Your task to perform on an android device: star an email in the gmail app Image 0: 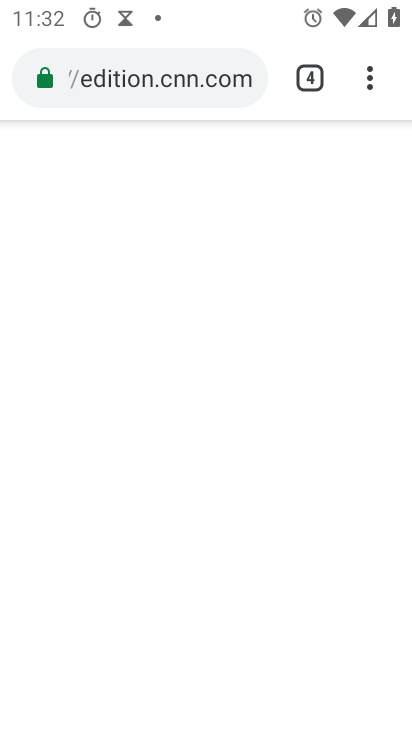
Step 0: press back button
Your task to perform on an android device: star an email in the gmail app Image 1: 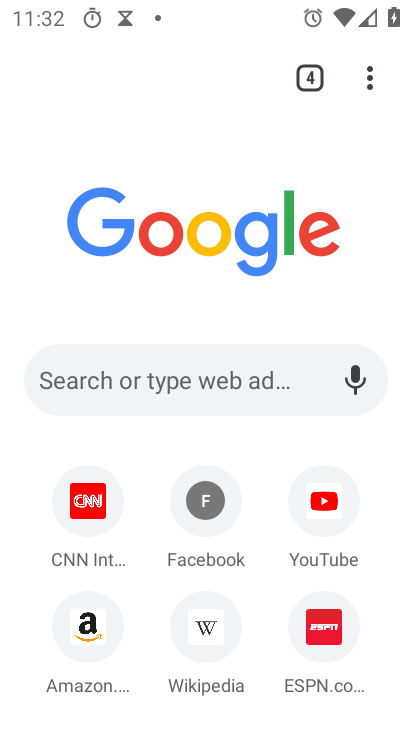
Step 1: press home button
Your task to perform on an android device: star an email in the gmail app Image 2: 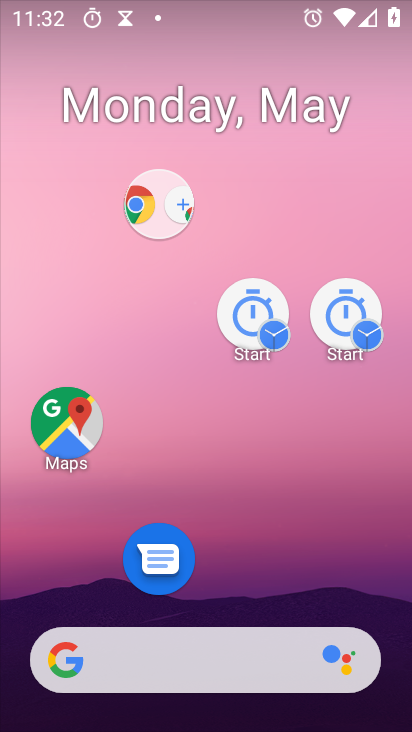
Step 2: drag from (254, 623) to (218, 155)
Your task to perform on an android device: star an email in the gmail app Image 3: 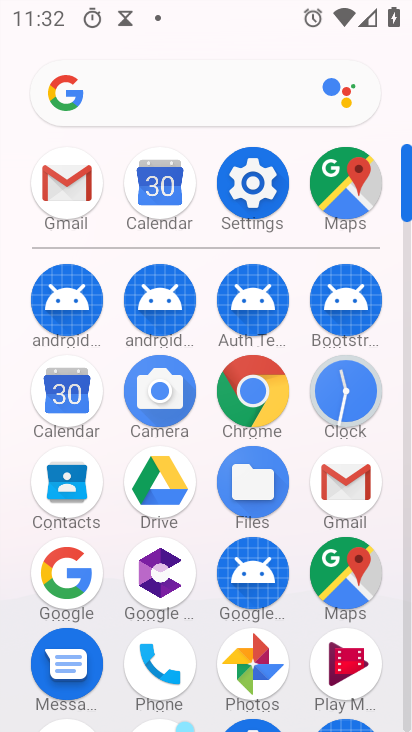
Step 3: click (336, 489)
Your task to perform on an android device: star an email in the gmail app Image 4: 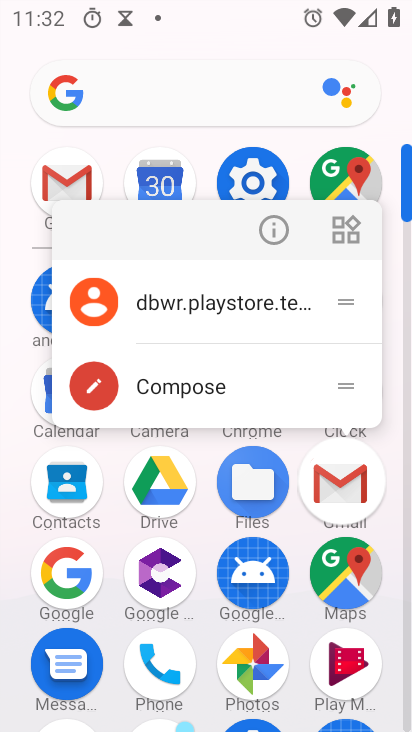
Step 4: click (333, 488)
Your task to perform on an android device: star an email in the gmail app Image 5: 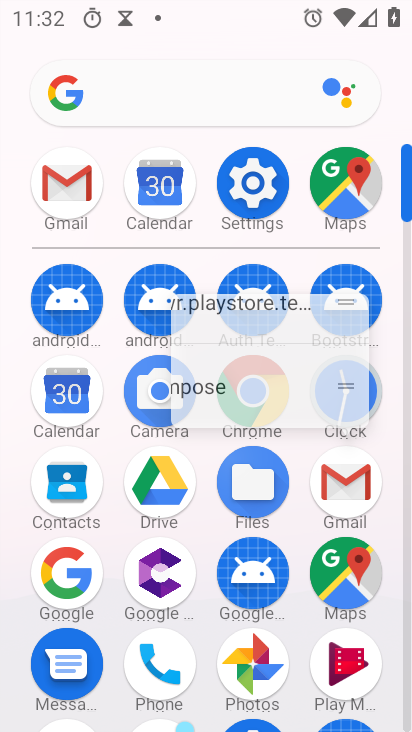
Step 5: click (335, 493)
Your task to perform on an android device: star an email in the gmail app Image 6: 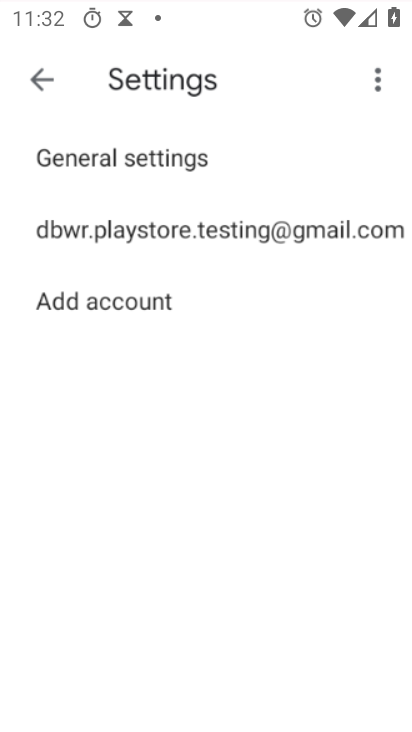
Step 6: click (332, 491)
Your task to perform on an android device: star an email in the gmail app Image 7: 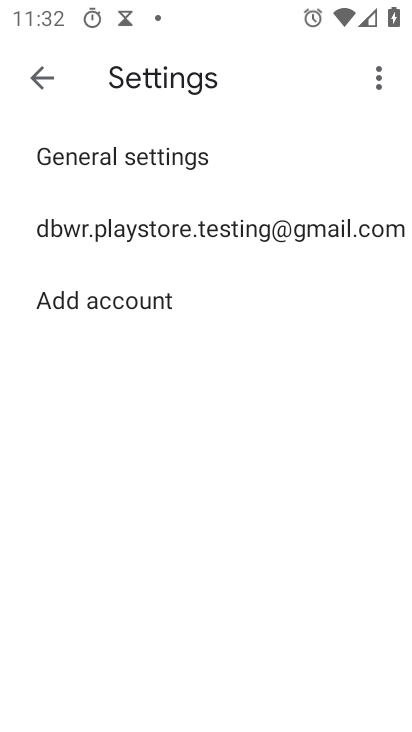
Step 7: click (333, 489)
Your task to perform on an android device: star an email in the gmail app Image 8: 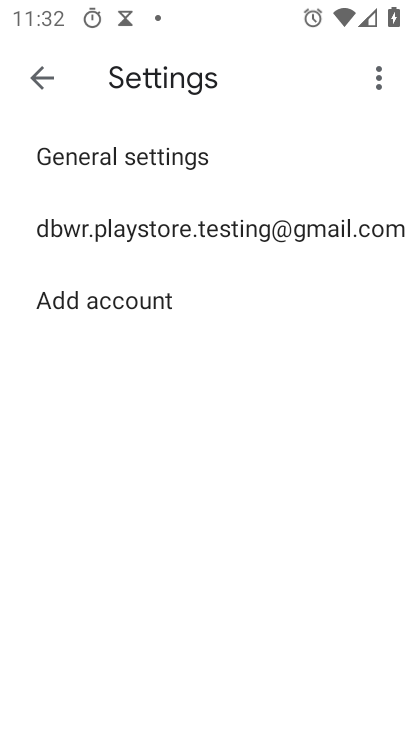
Step 8: click (132, 227)
Your task to perform on an android device: star an email in the gmail app Image 9: 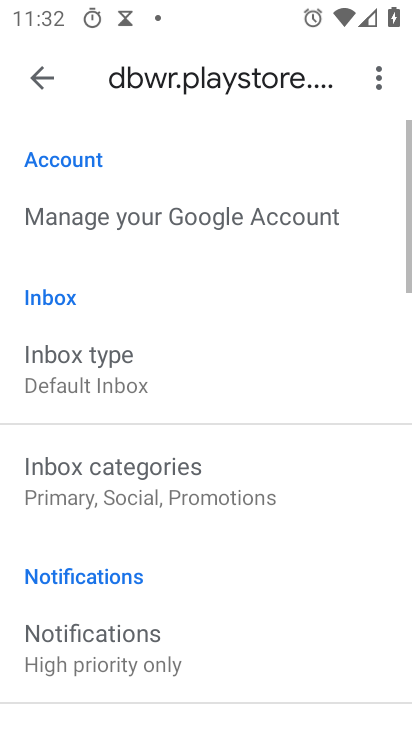
Step 9: click (156, 225)
Your task to perform on an android device: star an email in the gmail app Image 10: 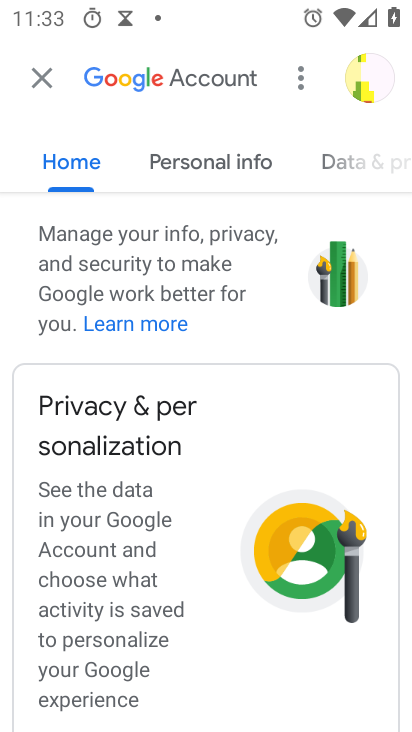
Step 10: click (38, 77)
Your task to perform on an android device: star an email in the gmail app Image 11: 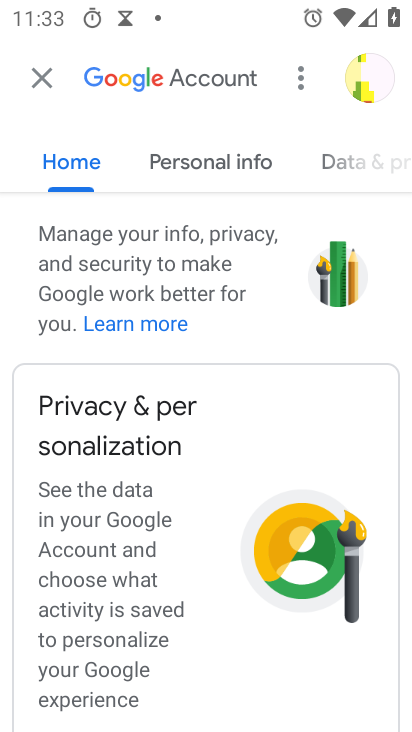
Step 11: click (31, 77)
Your task to perform on an android device: star an email in the gmail app Image 12: 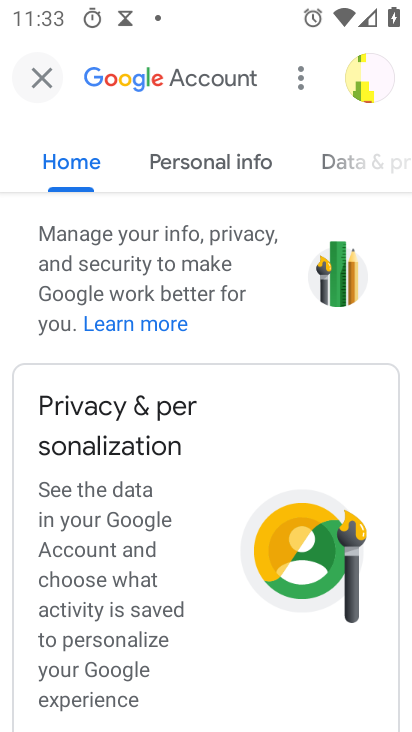
Step 12: click (34, 71)
Your task to perform on an android device: star an email in the gmail app Image 13: 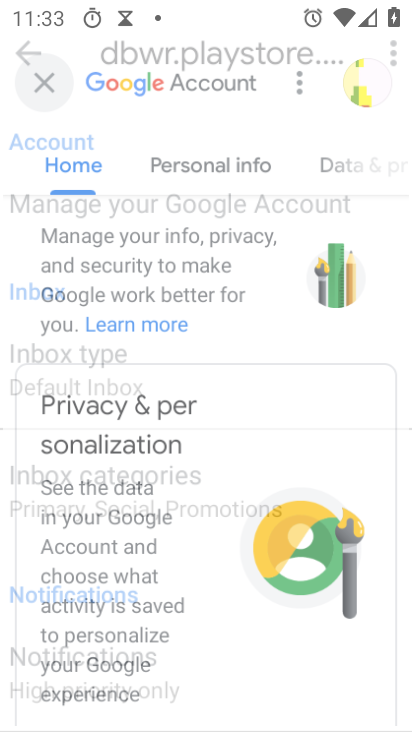
Step 13: click (36, 72)
Your task to perform on an android device: star an email in the gmail app Image 14: 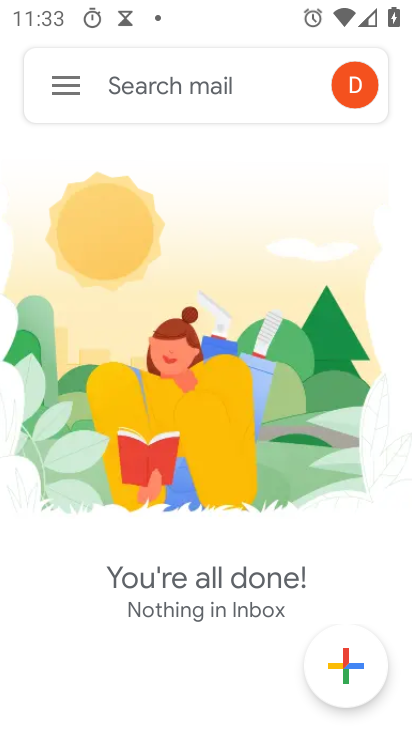
Step 14: click (66, 88)
Your task to perform on an android device: star an email in the gmail app Image 15: 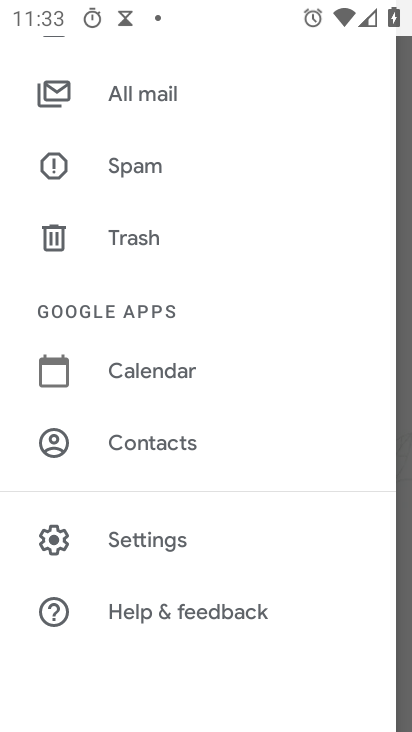
Step 15: click (142, 539)
Your task to perform on an android device: star an email in the gmail app Image 16: 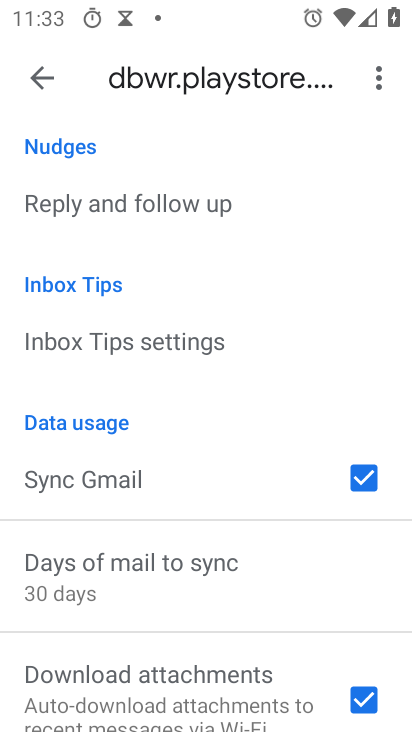
Step 16: drag from (170, 467) to (130, 107)
Your task to perform on an android device: star an email in the gmail app Image 17: 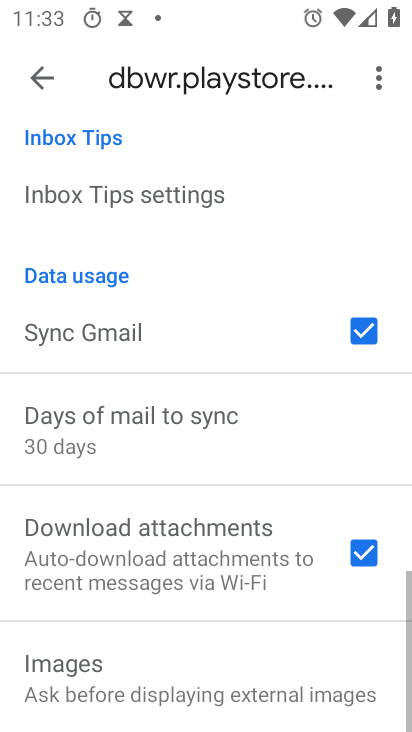
Step 17: drag from (164, 377) to (147, 119)
Your task to perform on an android device: star an email in the gmail app Image 18: 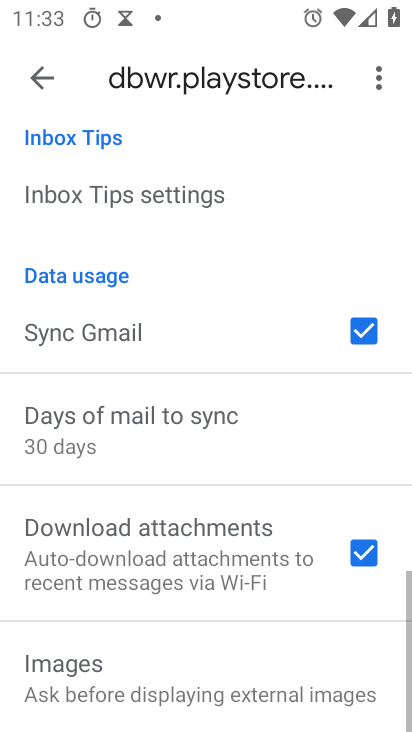
Step 18: click (41, 76)
Your task to perform on an android device: star an email in the gmail app Image 19: 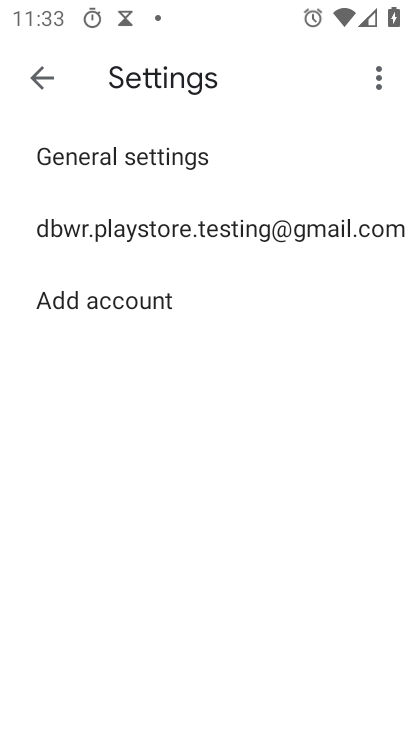
Step 19: click (35, 84)
Your task to perform on an android device: star an email in the gmail app Image 20: 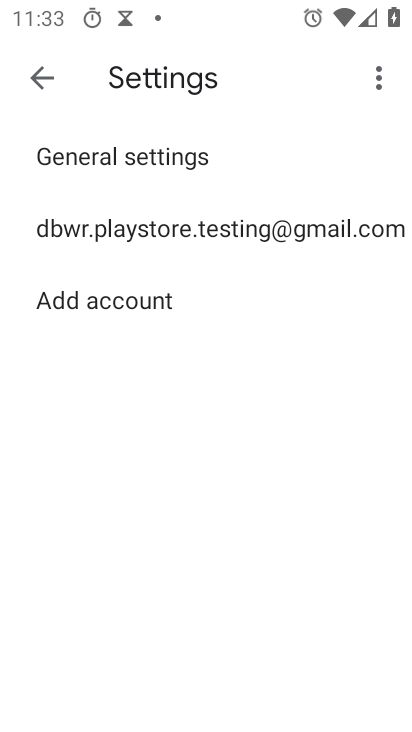
Step 20: click (35, 82)
Your task to perform on an android device: star an email in the gmail app Image 21: 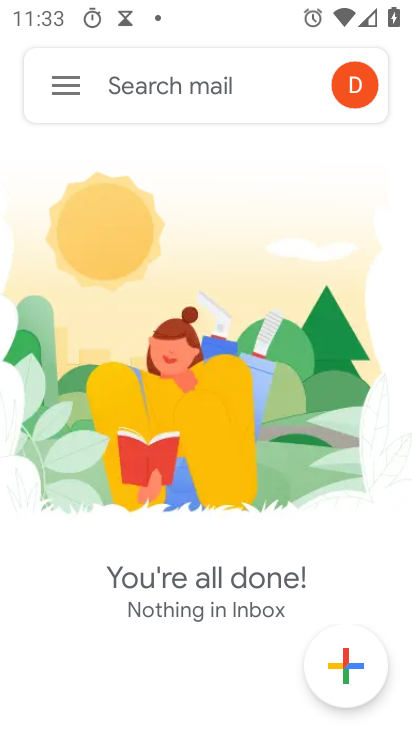
Step 21: click (77, 67)
Your task to perform on an android device: star an email in the gmail app Image 22: 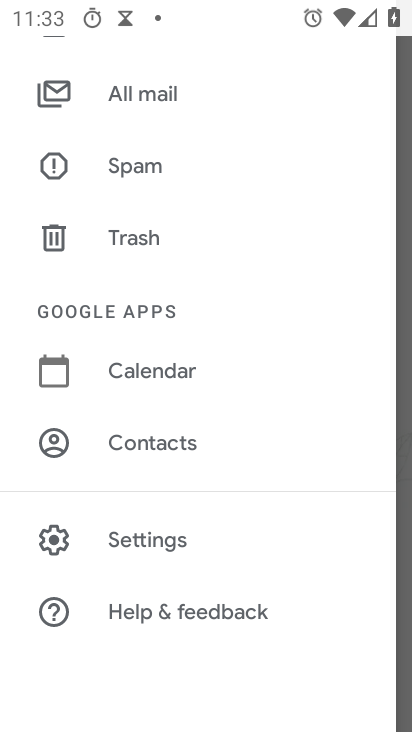
Step 22: click (148, 102)
Your task to perform on an android device: star an email in the gmail app Image 23: 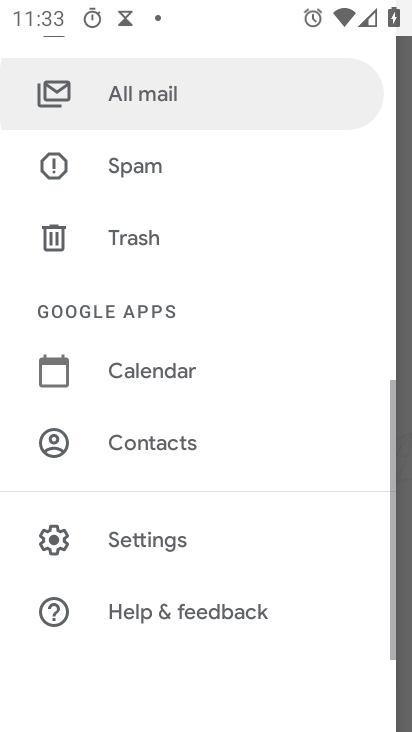
Step 23: click (148, 102)
Your task to perform on an android device: star an email in the gmail app Image 24: 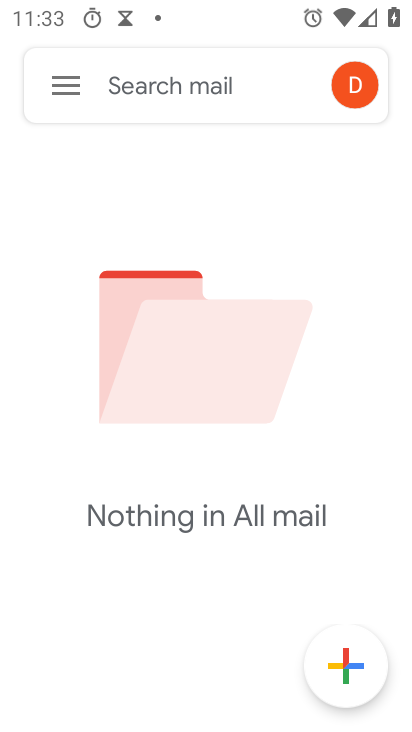
Step 24: task complete